Your task to perform on an android device: make emails show in primary in the gmail app Image 0: 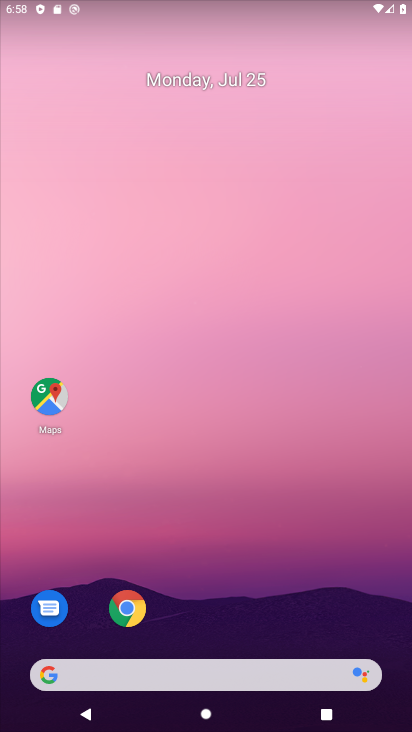
Step 0: drag from (360, 619) to (301, 1)
Your task to perform on an android device: make emails show in primary in the gmail app Image 1: 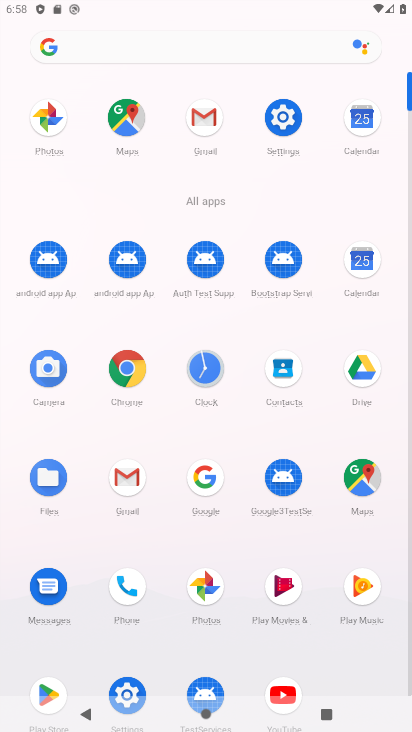
Step 1: click (133, 485)
Your task to perform on an android device: make emails show in primary in the gmail app Image 2: 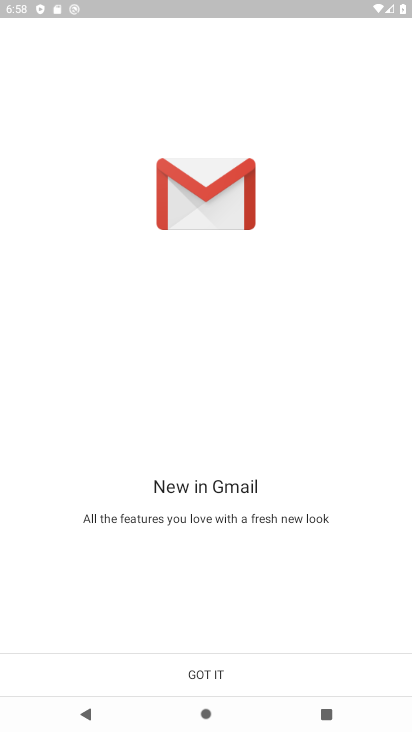
Step 2: click (217, 668)
Your task to perform on an android device: make emails show in primary in the gmail app Image 3: 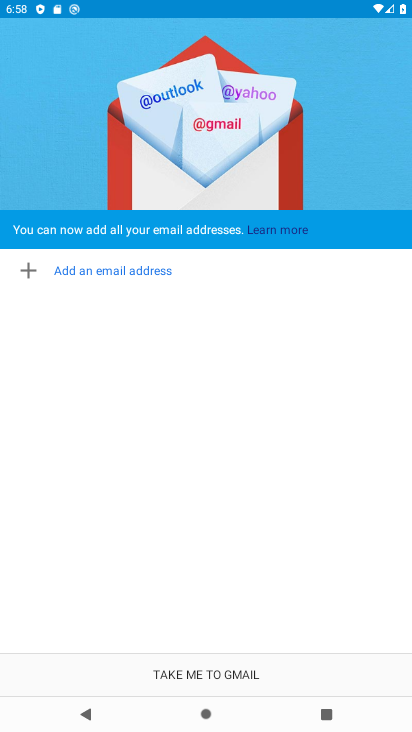
Step 3: click (207, 663)
Your task to perform on an android device: make emails show in primary in the gmail app Image 4: 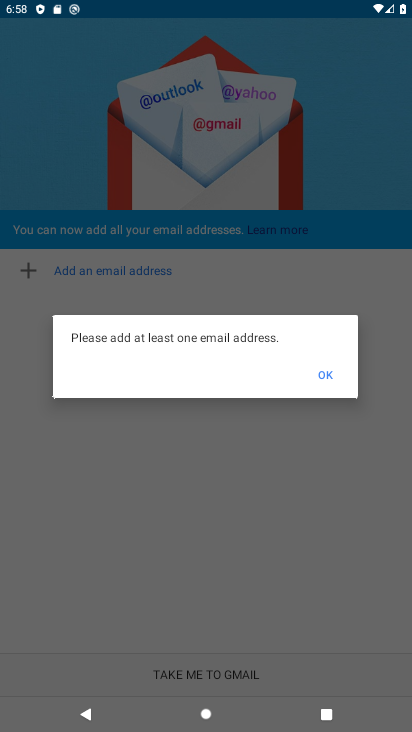
Step 4: click (331, 378)
Your task to perform on an android device: make emails show in primary in the gmail app Image 5: 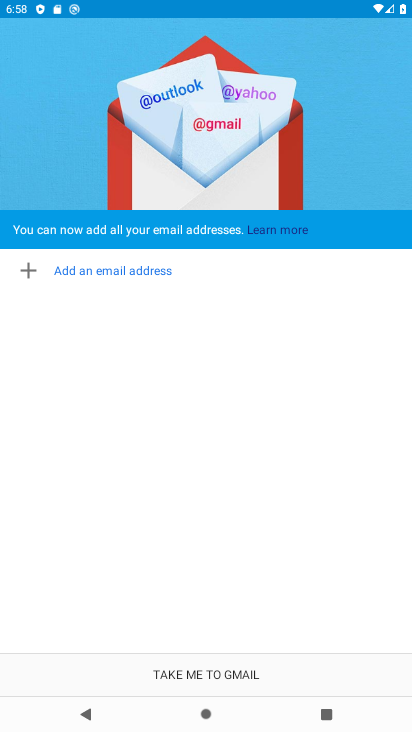
Step 5: task complete